Your task to perform on an android device: turn off location history Image 0: 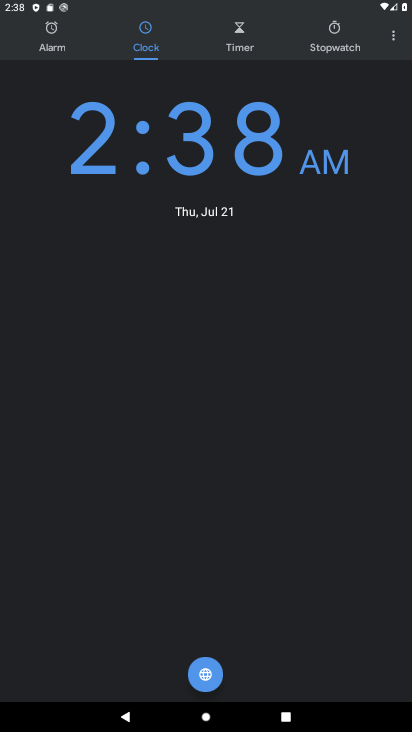
Step 0: press home button
Your task to perform on an android device: turn off location history Image 1: 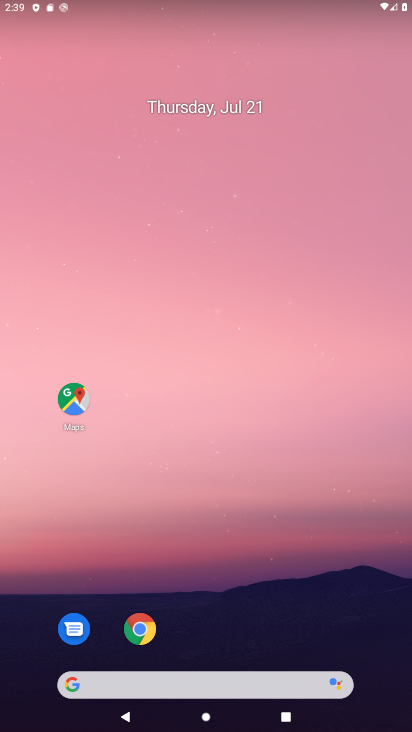
Step 1: drag from (374, 619) to (324, 28)
Your task to perform on an android device: turn off location history Image 2: 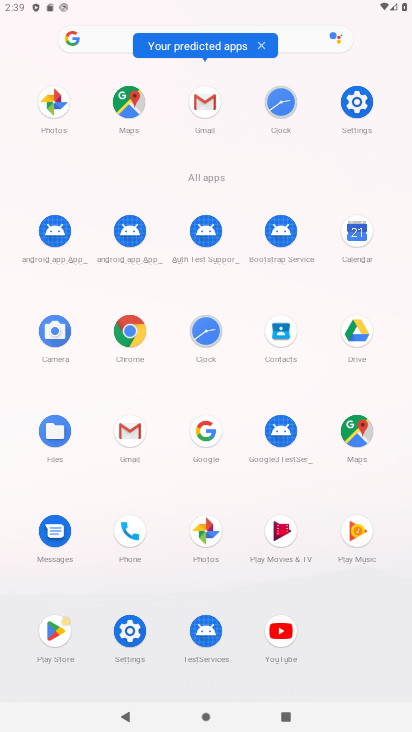
Step 2: click (349, 96)
Your task to perform on an android device: turn off location history Image 3: 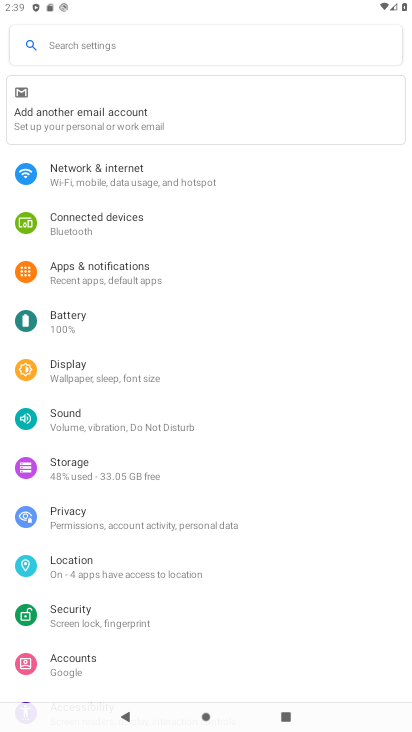
Step 3: click (109, 266)
Your task to perform on an android device: turn off location history Image 4: 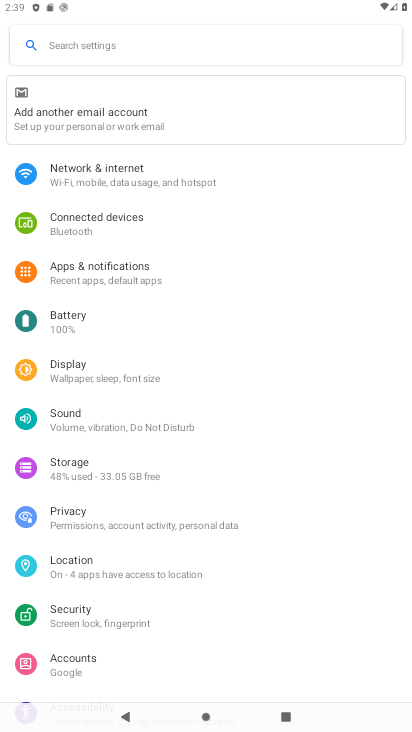
Step 4: click (108, 269)
Your task to perform on an android device: turn off location history Image 5: 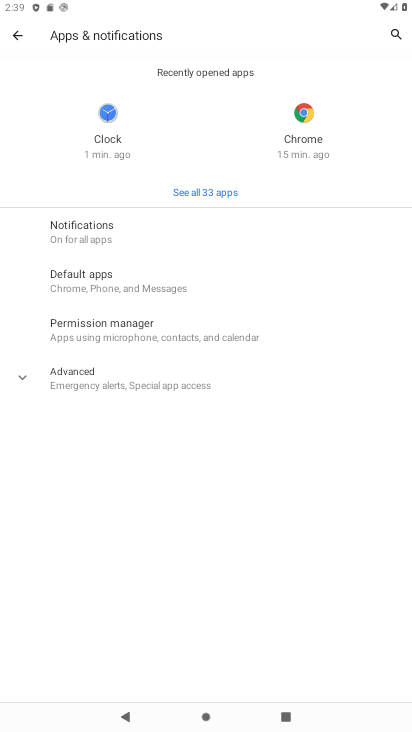
Step 5: click (80, 234)
Your task to perform on an android device: turn off location history Image 6: 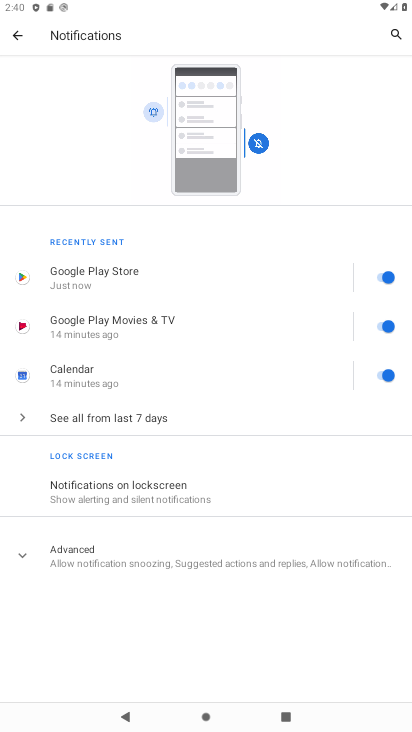
Step 6: task complete